Your task to perform on an android device: toggle sleep mode Image 0: 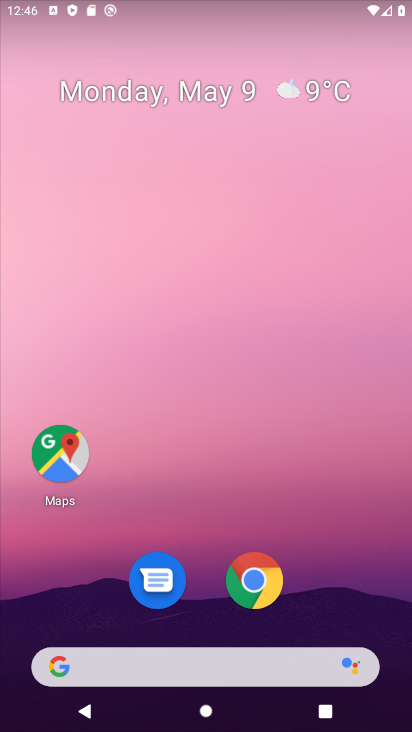
Step 0: drag from (319, 590) to (264, 72)
Your task to perform on an android device: toggle sleep mode Image 1: 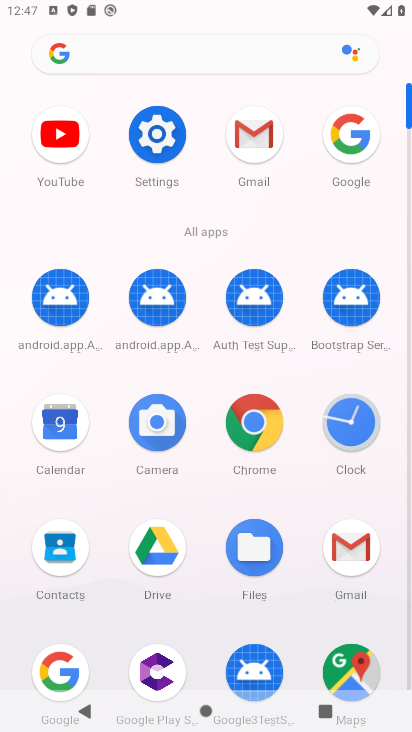
Step 1: click (363, 547)
Your task to perform on an android device: toggle sleep mode Image 2: 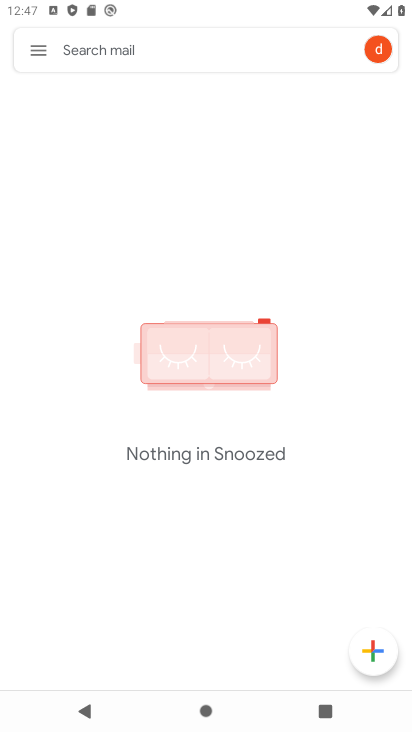
Step 2: press home button
Your task to perform on an android device: toggle sleep mode Image 3: 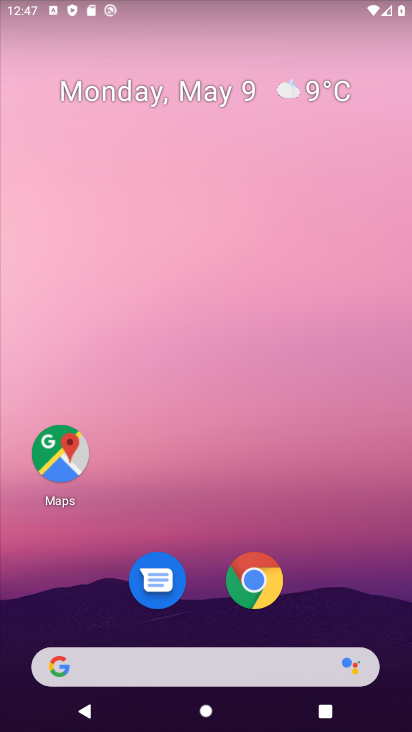
Step 3: drag from (291, 387) to (219, 35)
Your task to perform on an android device: toggle sleep mode Image 4: 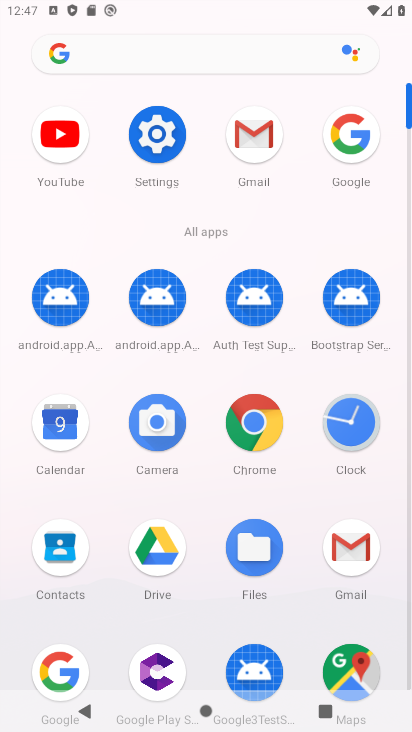
Step 4: click (162, 137)
Your task to perform on an android device: toggle sleep mode Image 5: 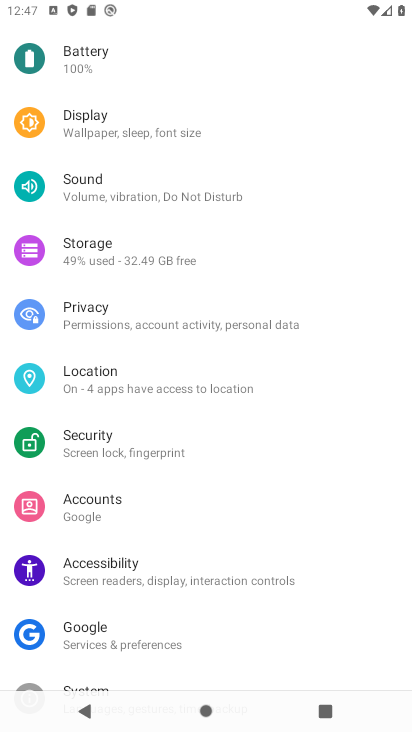
Step 5: click (148, 142)
Your task to perform on an android device: toggle sleep mode Image 6: 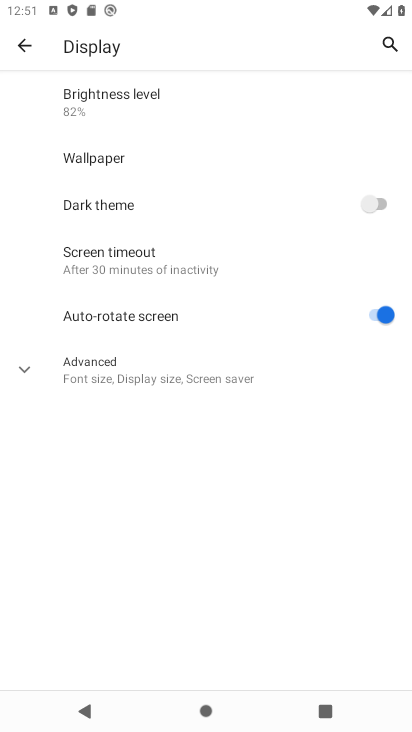
Step 6: task complete